Your task to perform on an android device: toggle javascript in the chrome app Image 0: 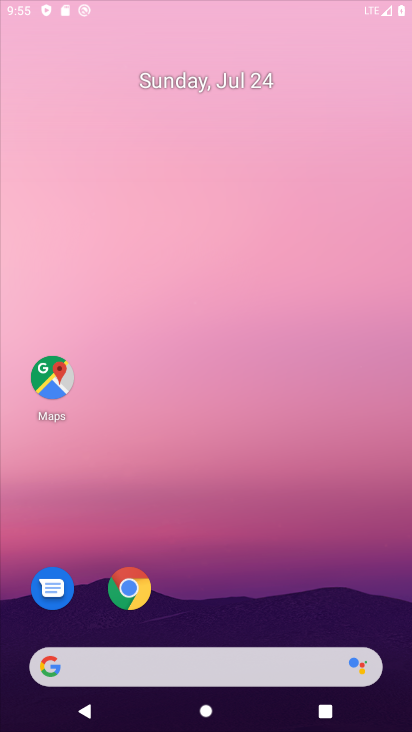
Step 0: drag from (238, 691) to (288, 12)
Your task to perform on an android device: toggle javascript in the chrome app Image 1: 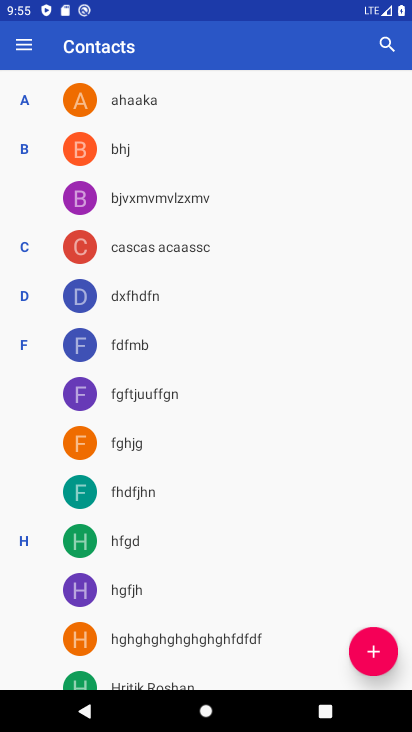
Step 1: press home button
Your task to perform on an android device: toggle javascript in the chrome app Image 2: 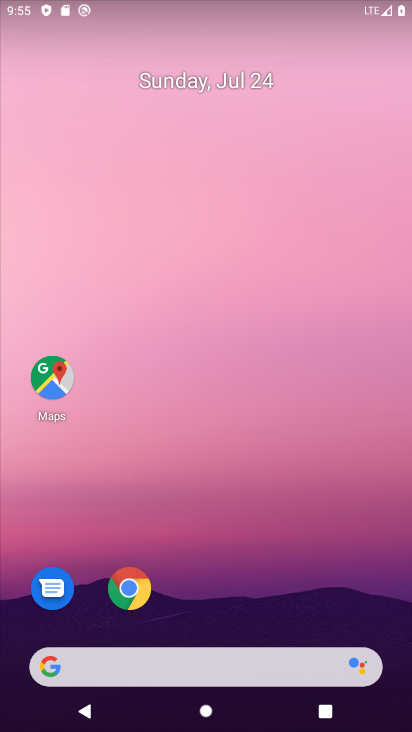
Step 2: click (133, 591)
Your task to perform on an android device: toggle javascript in the chrome app Image 3: 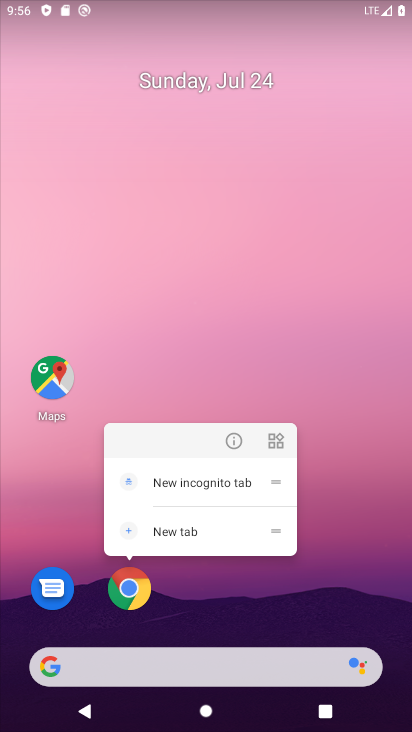
Step 3: click (131, 611)
Your task to perform on an android device: toggle javascript in the chrome app Image 4: 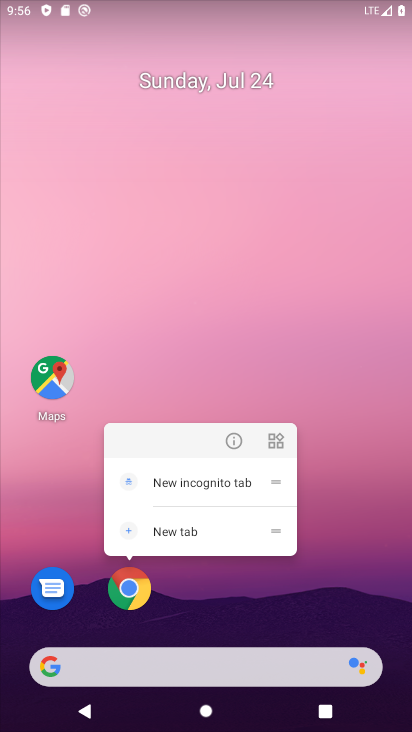
Step 4: click (131, 611)
Your task to perform on an android device: toggle javascript in the chrome app Image 5: 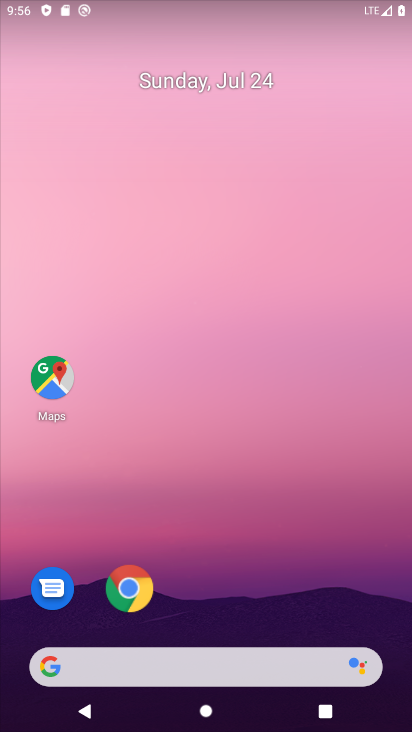
Step 5: click (131, 611)
Your task to perform on an android device: toggle javascript in the chrome app Image 6: 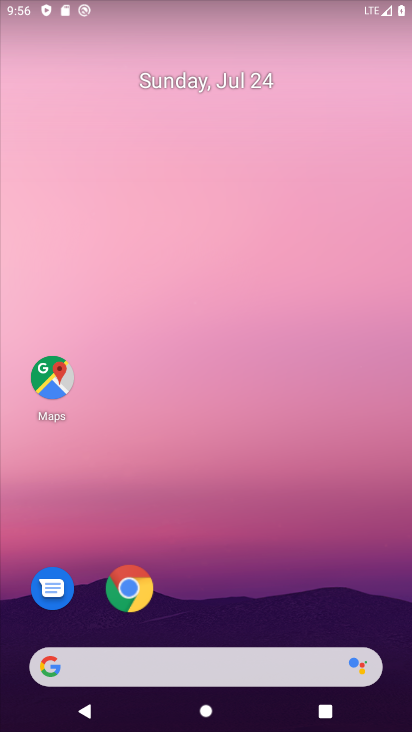
Step 6: click (131, 588)
Your task to perform on an android device: toggle javascript in the chrome app Image 7: 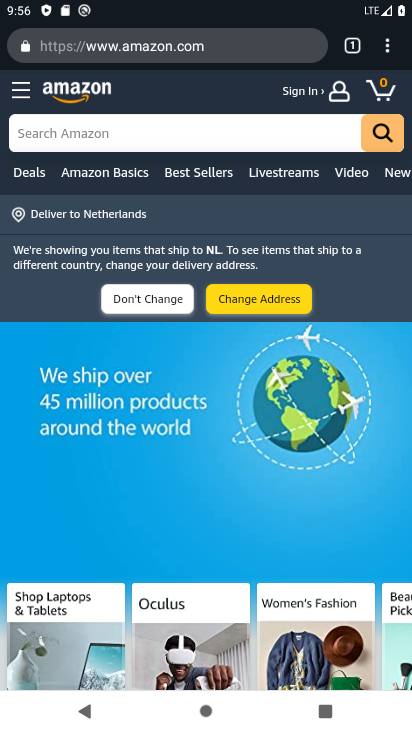
Step 7: click (131, 577)
Your task to perform on an android device: toggle javascript in the chrome app Image 8: 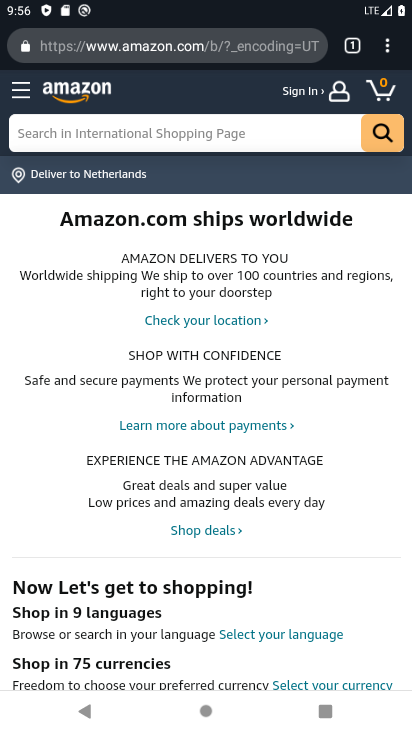
Step 8: click (390, 53)
Your task to perform on an android device: toggle javascript in the chrome app Image 9: 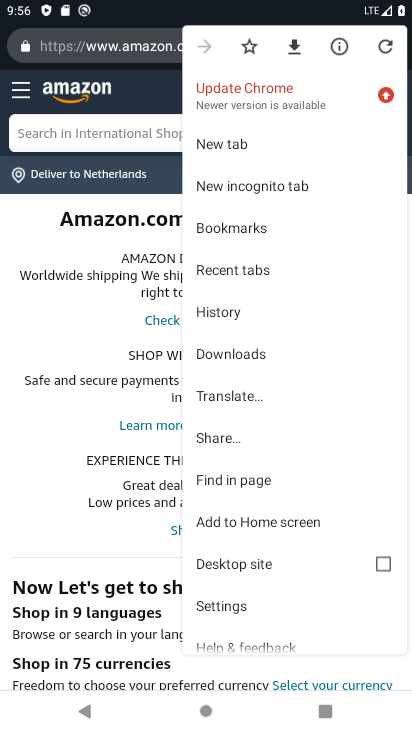
Step 9: click (244, 604)
Your task to perform on an android device: toggle javascript in the chrome app Image 10: 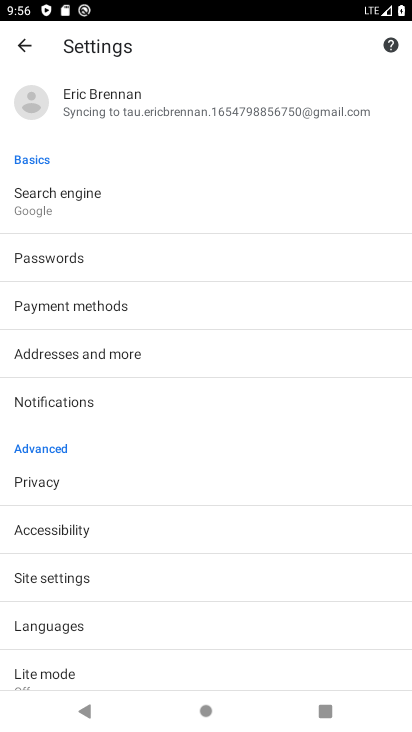
Step 10: click (129, 573)
Your task to perform on an android device: toggle javascript in the chrome app Image 11: 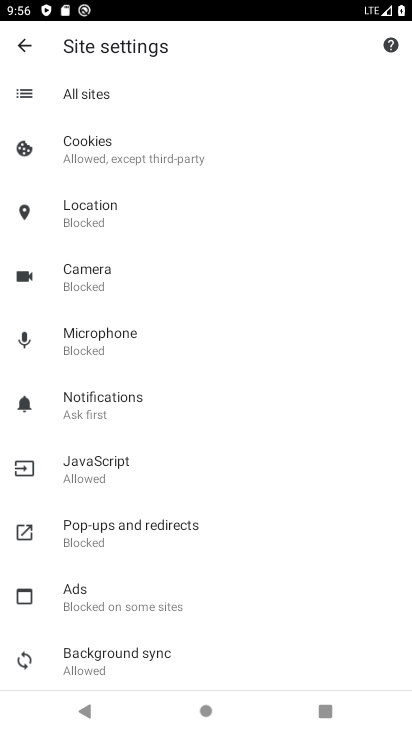
Step 11: click (204, 447)
Your task to perform on an android device: toggle javascript in the chrome app Image 12: 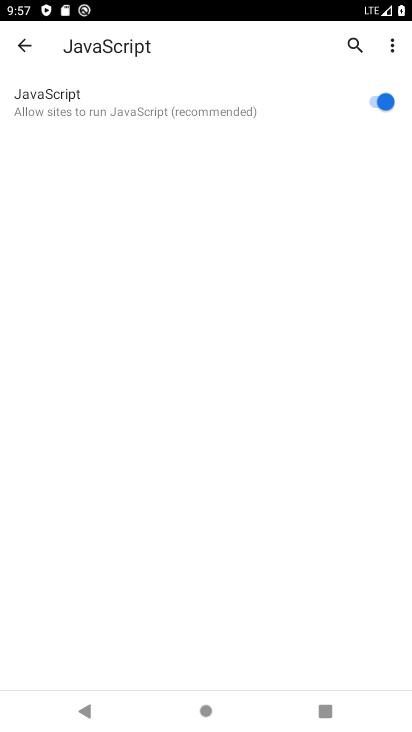
Step 12: click (378, 106)
Your task to perform on an android device: toggle javascript in the chrome app Image 13: 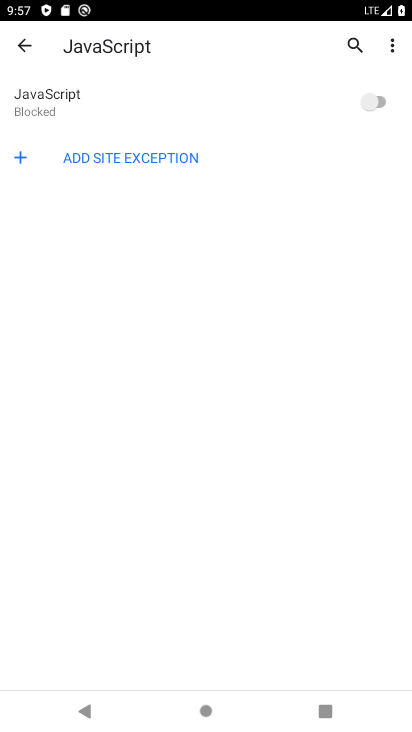
Step 13: task complete